Your task to perform on an android device: allow cookies in the chrome app Image 0: 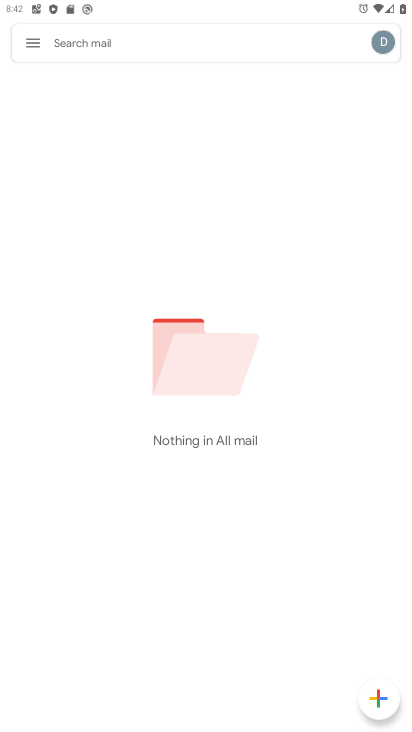
Step 0: press home button
Your task to perform on an android device: allow cookies in the chrome app Image 1: 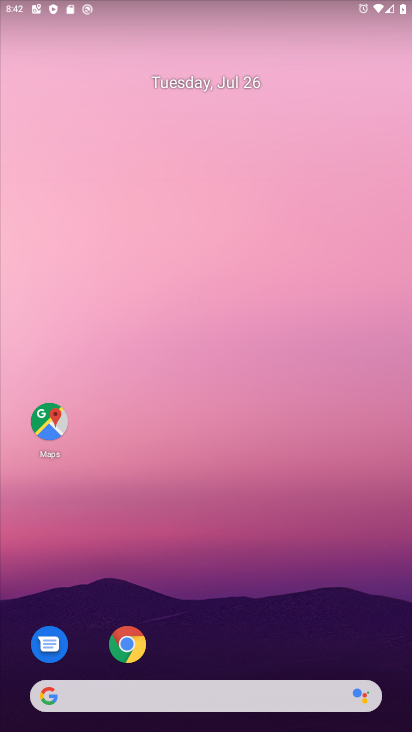
Step 1: click (135, 654)
Your task to perform on an android device: allow cookies in the chrome app Image 2: 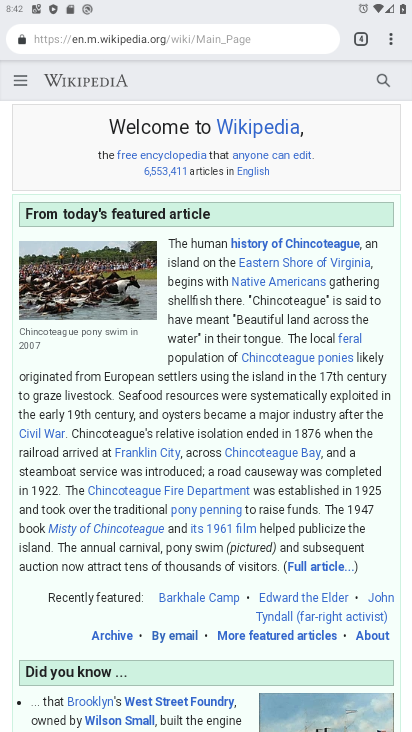
Step 2: click (392, 34)
Your task to perform on an android device: allow cookies in the chrome app Image 3: 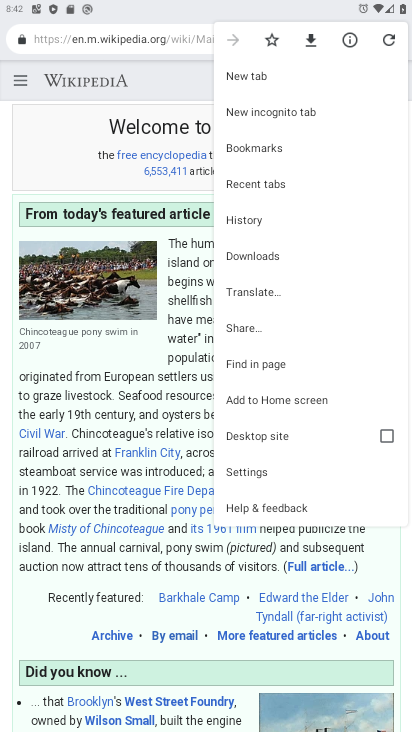
Step 3: click (246, 469)
Your task to perform on an android device: allow cookies in the chrome app Image 4: 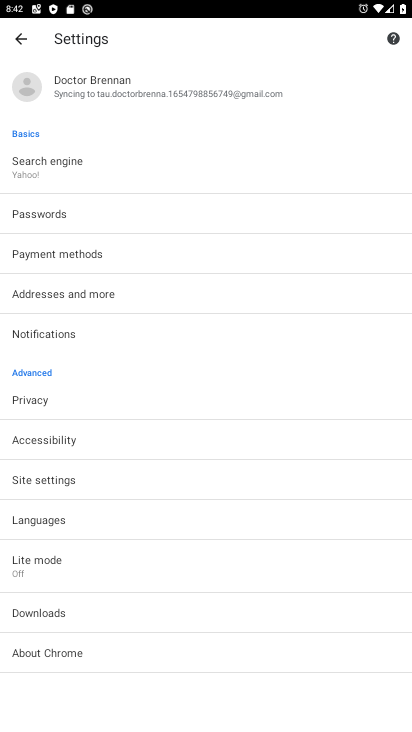
Step 4: click (65, 476)
Your task to perform on an android device: allow cookies in the chrome app Image 5: 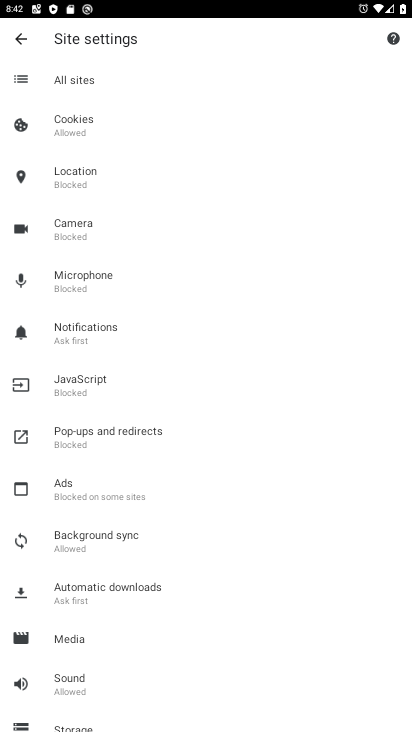
Step 5: click (88, 112)
Your task to perform on an android device: allow cookies in the chrome app Image 6: 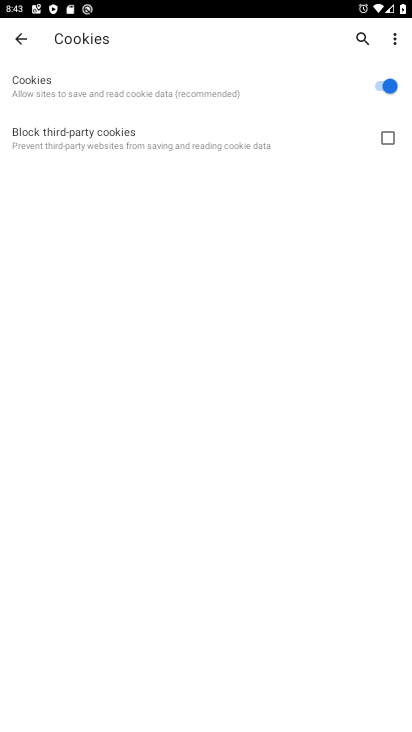
Step 6: task complete